Your task to perform on an android device: set the timer Image 0: 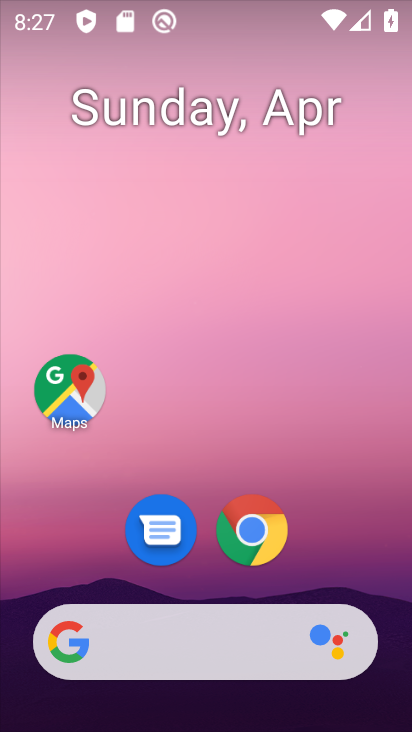
Step 0: drag from (174, 358) to (266, 0)
Your task to perform on an android device: set the timer Image 1: 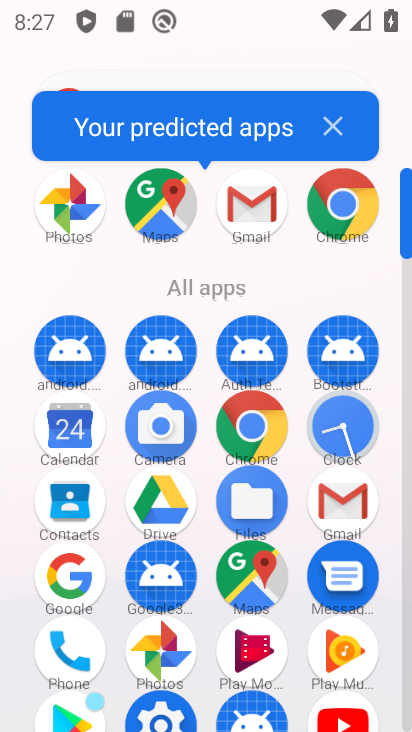
Step 1: click (340, 437)
Your task to perform on an android device: set the timer Image 2: 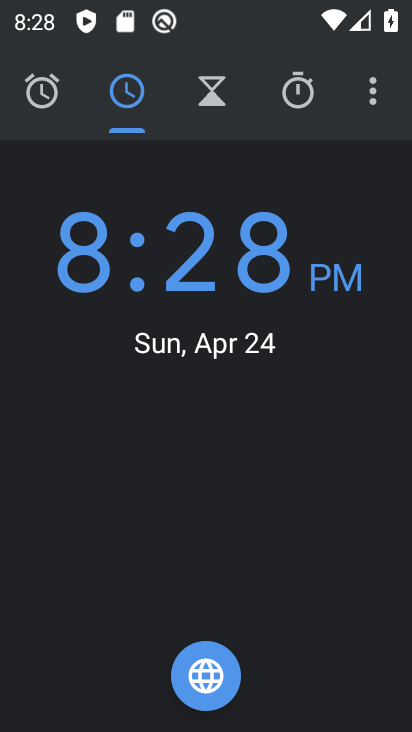
Step 2: click (222, 103)
Your task to perform on an android device: set the timer Image 3: 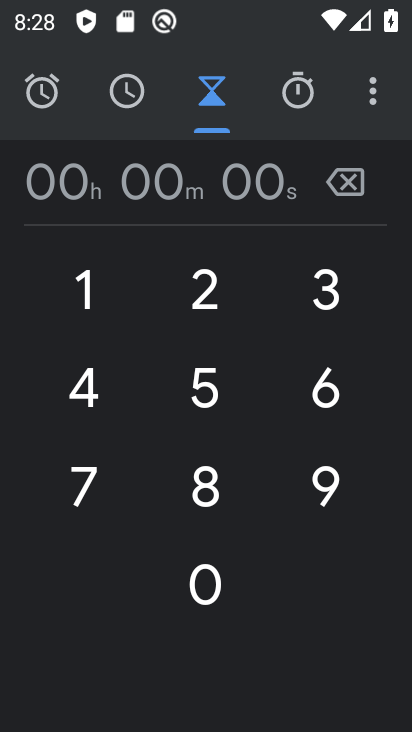
Step 3: click (126, 94)
Your task to perform on an android device: set the timer Image 4: 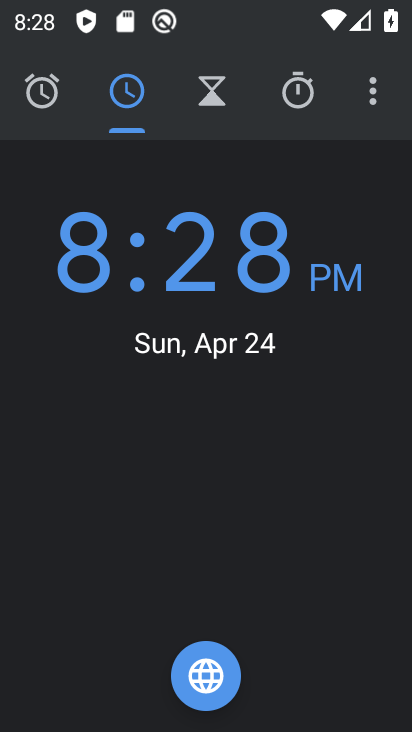
Step 4: click (220, 86)
Your task to perform on an android device: set the timer Image 5: 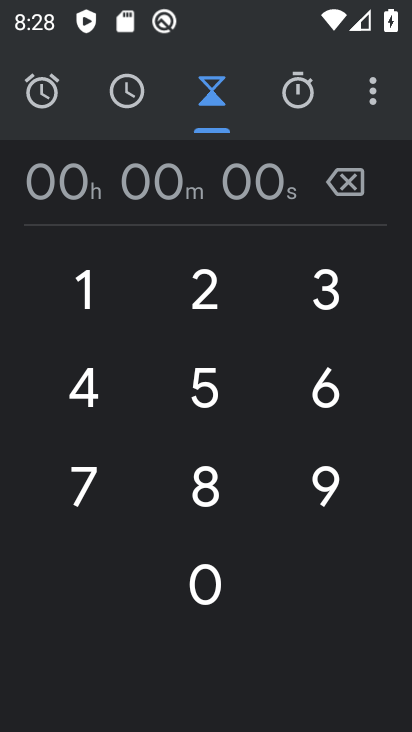
Step 5: click (195, 473)
Your task to perform on an android device: set the timer Image 6: 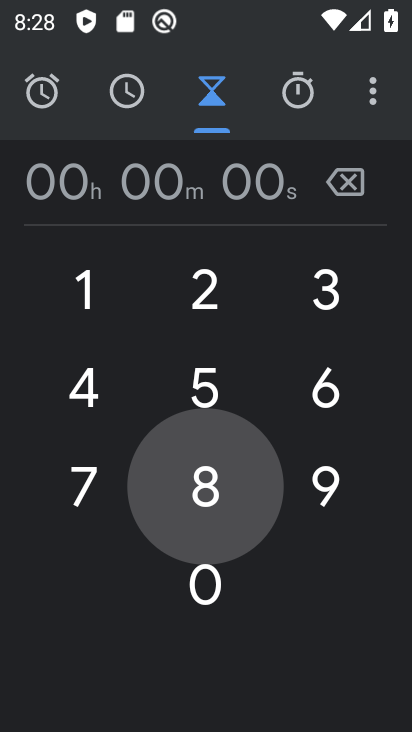
Step 6: click (195, 473)
Your task to perform on an android device: set the timer Image 7: 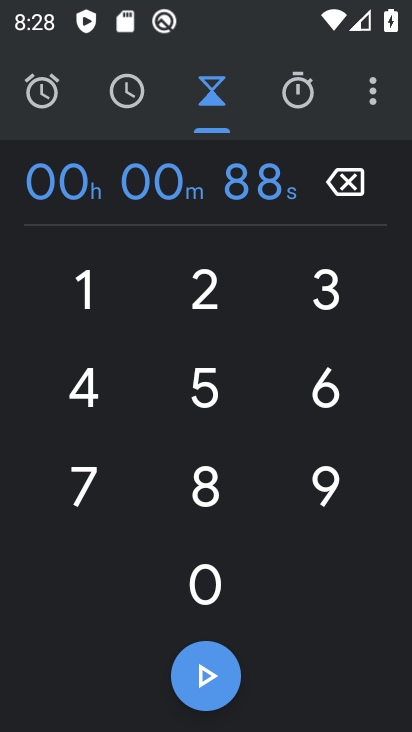
Step 7: click (337, 401)
Your task to perform on an android device: set the timer Image 8: 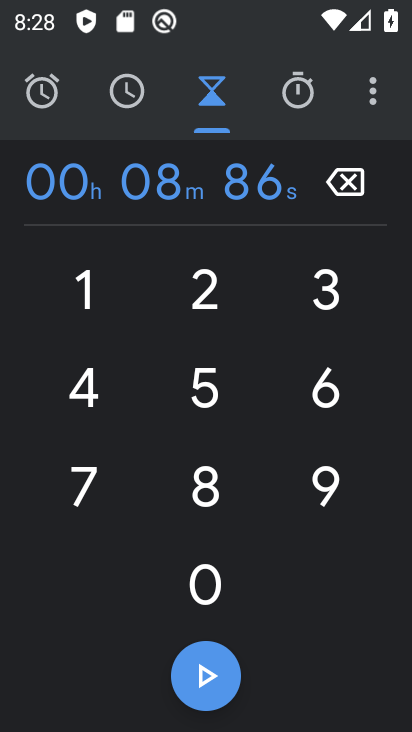
Step 8: click (191, 672)
Your task to perform on an android device: set the timer Image 9: 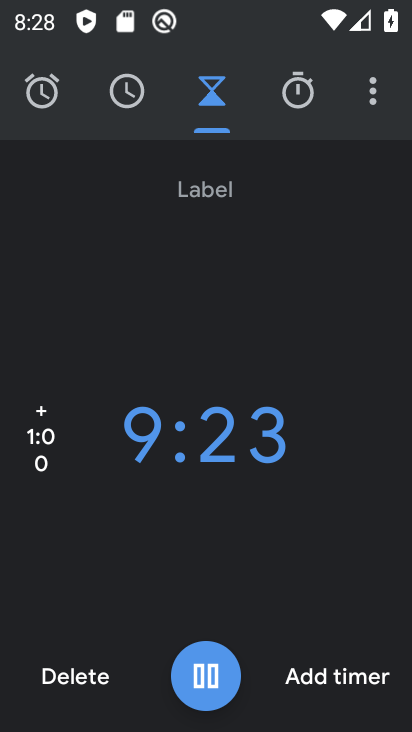
Step 9: task complete